Your task to perform on an android device: Open the calendar and show me this week's events? Image 0: 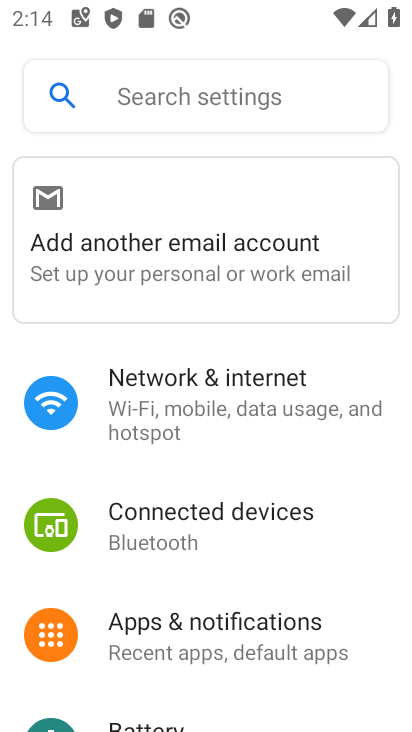
Step 0: press home button
Your task to perform on an android device: Open the calendar and show me this week's events? Image 1: 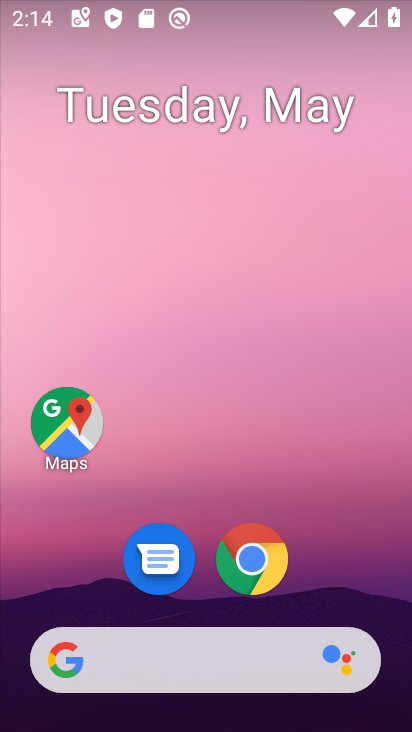
Step 1: drag from (253, 656) to (309, 158)
Your task to perform on an android device: Open the calendar and show me this week's events? Image 2: 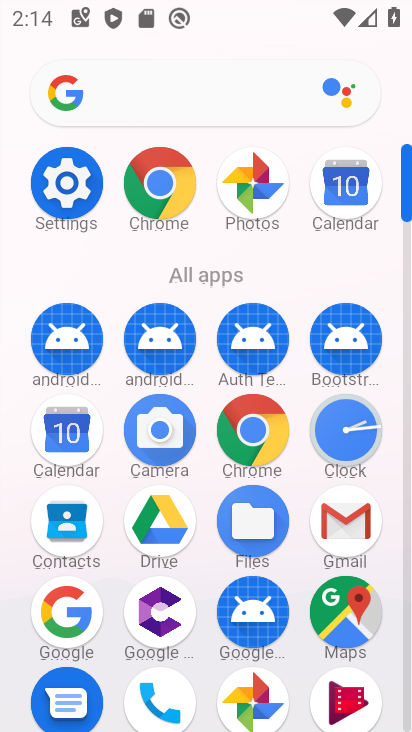
Step 2: click (356, 196)
Your task to perform on an android device: Open the calendar and show me this week's events? Image 3: 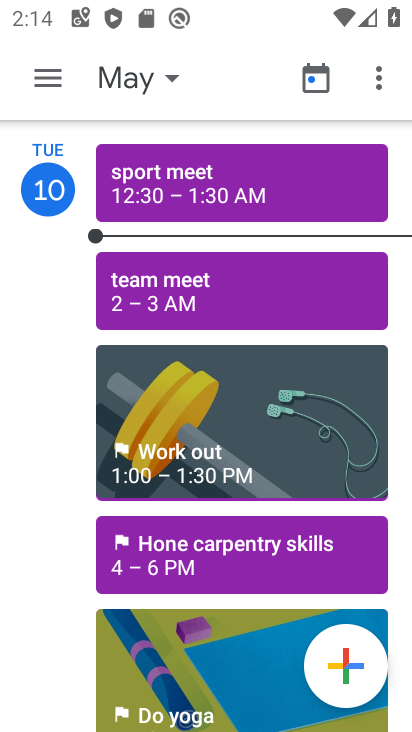
Step 3: click (122, 88)
Your task to perform on an android device: Open the calendar and show me this week's events? Image 4: 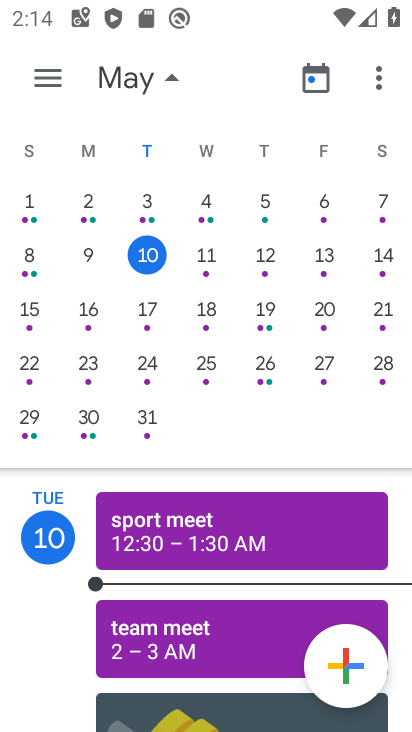
Step 4: click (54, 78)
Your task to perform on an android device: Open the calendar and show me this week's events? Image 5: 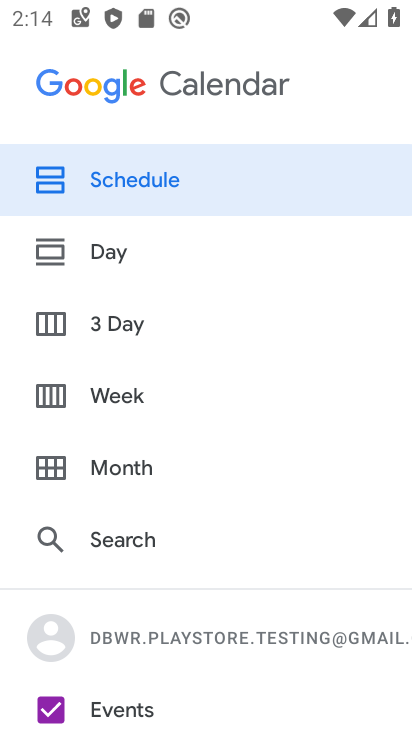
Step 5: click (113, 400)
Your task to perform on an android device: Open the calendar and show me this week's events? Image 6: 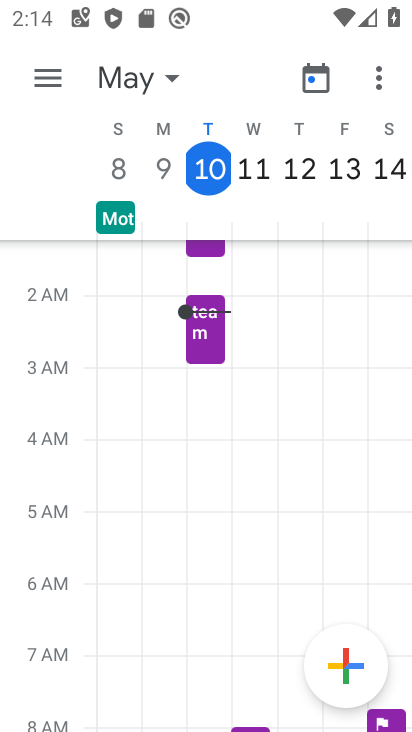
Step 6: click (50, 75)
Your task to perform on an android device: Open the calendar and show me this week's events? Image 7: 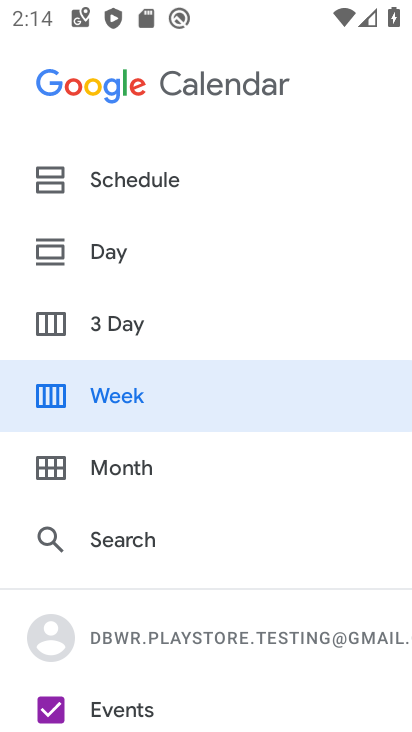
Step 7: click (131, 180)
Your task to perform on an android device: Open the calendar and show me this week's events? Image 8: 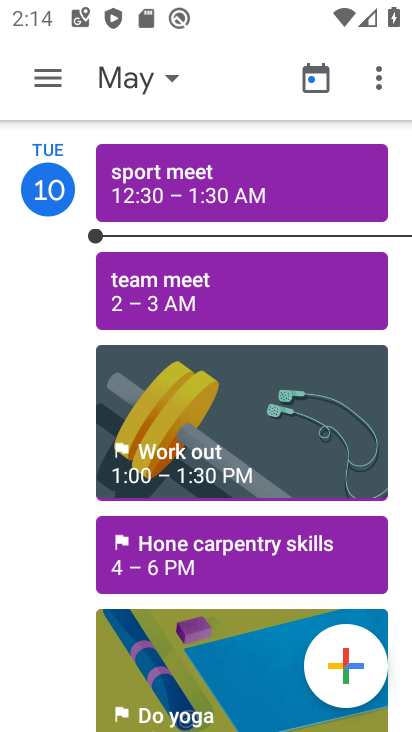
Step 8: task complete